Your task to perform on an android device: Open Reddit.com Image 0: 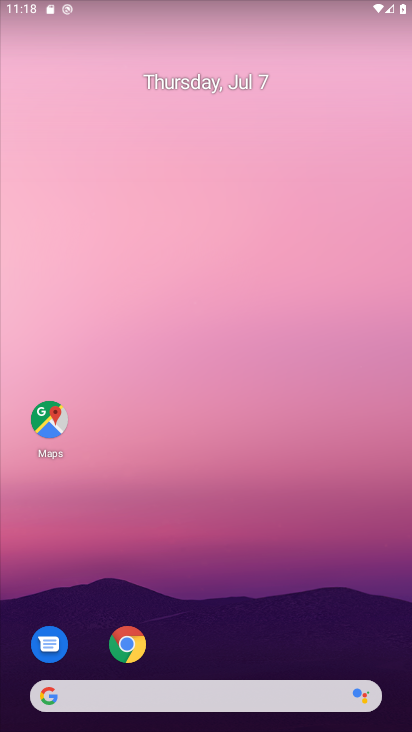
Step 0: press home button
Your task to perform on an android device: Open Reddit.com Image 1: 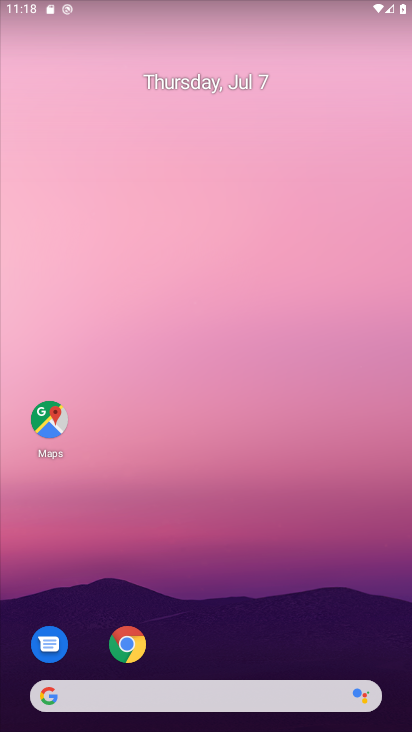
Step 1: click (172, 694)
Your task to perform on an android device: Open Reddit.com Image 2: 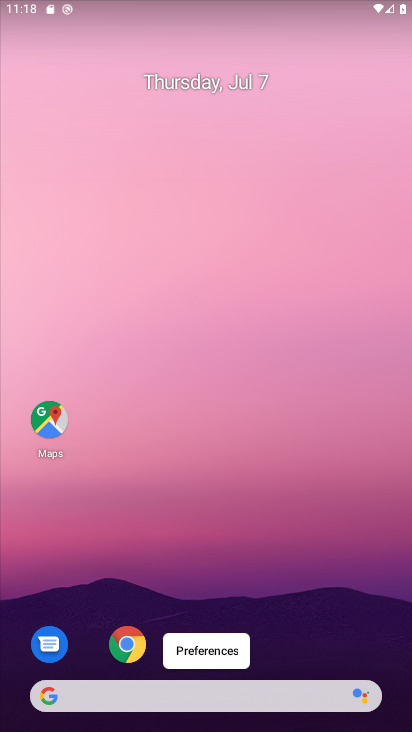
Step 2: click (300, 690)
Your task to perform on an android device: Open Reddit.com Image 3: 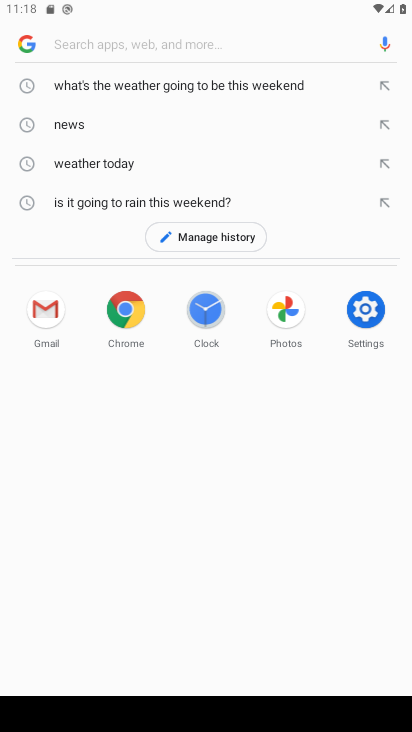
Step 3: type "Reddit.com"
Your task to perform on an android device: Open Reddit.com Image 4: 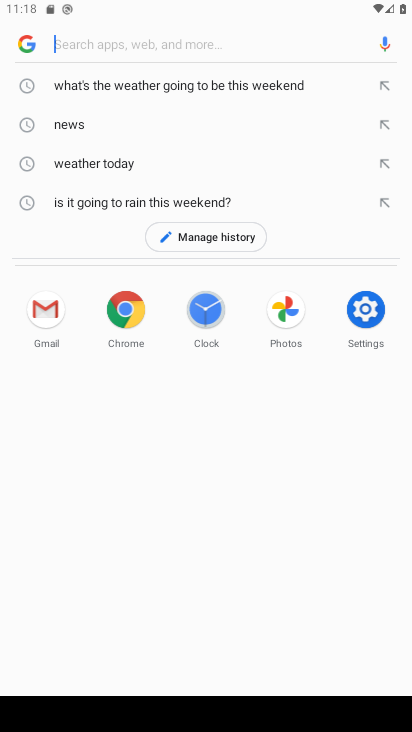
Step 4: click (57, 43)
Your task to perform on an android device: Open Reddit.com Image 5: 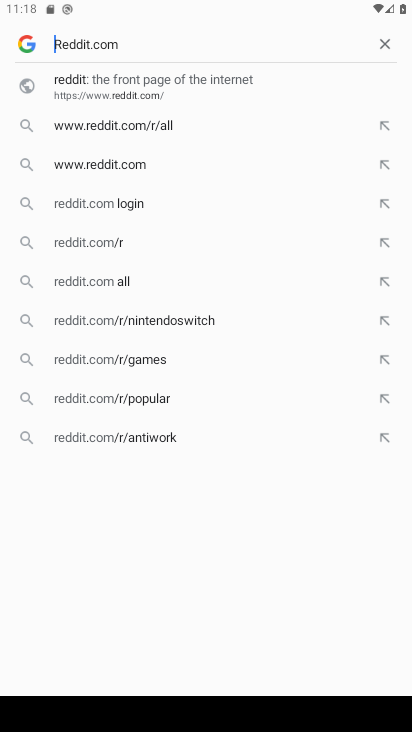
Step 5: press enter
Your task to perform on an android device: Open Reddit.com Image 6: 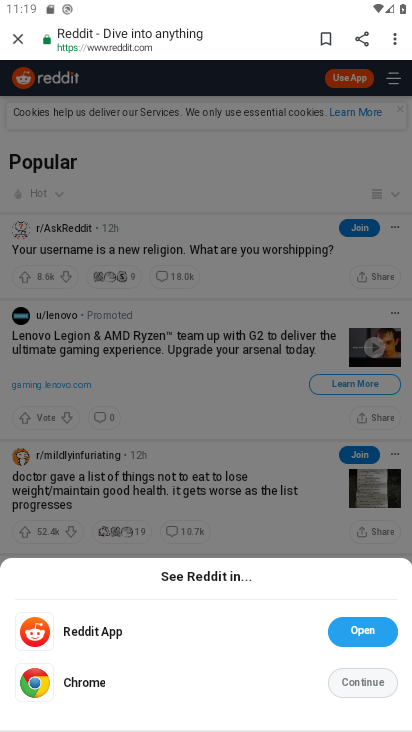
Step 6: task complete